Your task to perform on an android device: turn off javascript in the chrome app Image 0: 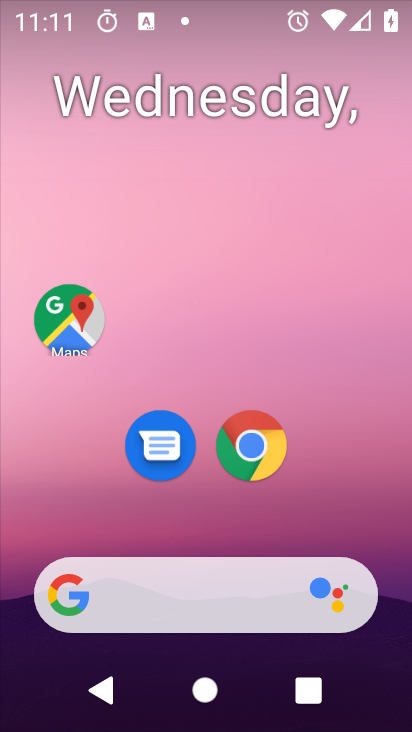
Step 0: drag from (364, 545) to (411, 82)
Your task to perform on an android device: turn off javascript in the chrome app Image 1: 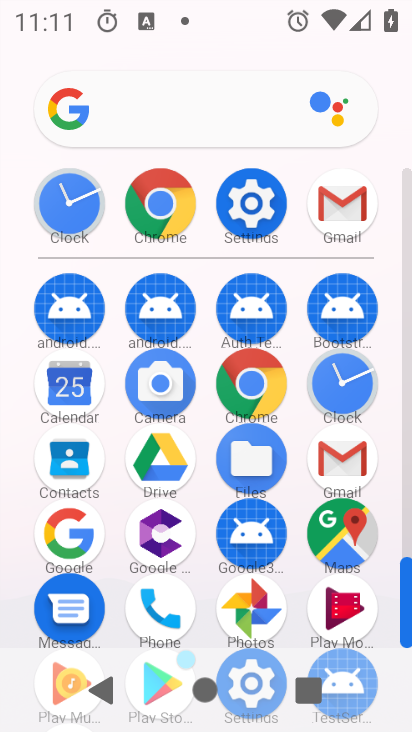
Step 1: click (172, 213)
Your task to perform on an android device: turn off javascript in the chrome app Image 2: 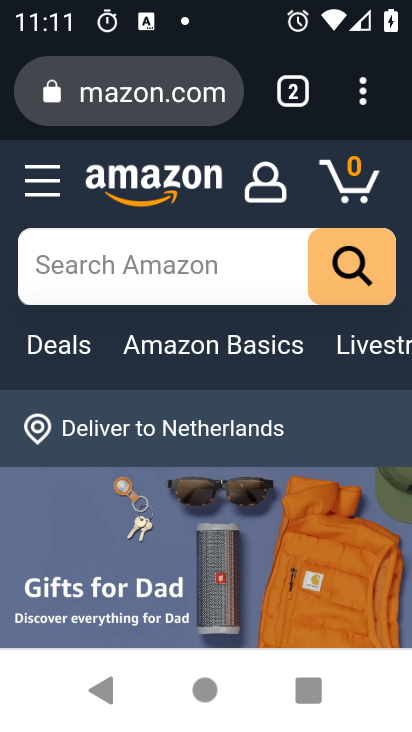
Step 2: drag from (360, 107) to (245, 472)
Your task to perform on an android device: turn off javascript in the chrome app Image 3: 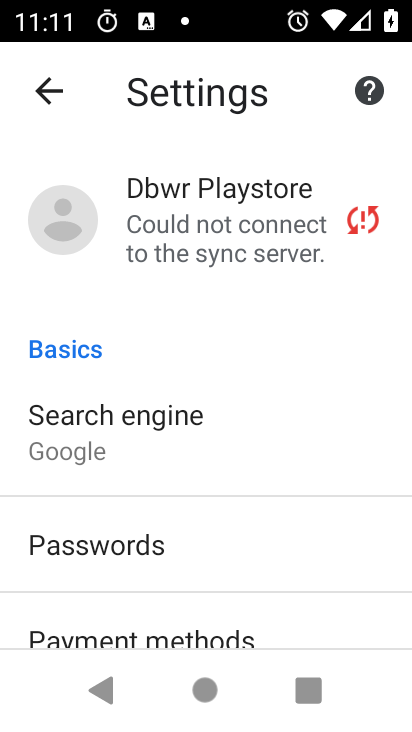
Step 3: drag from (294, 561) to (239, 152)
Your task to perform on an android device: turn off javascript in the chrome app Image 4: 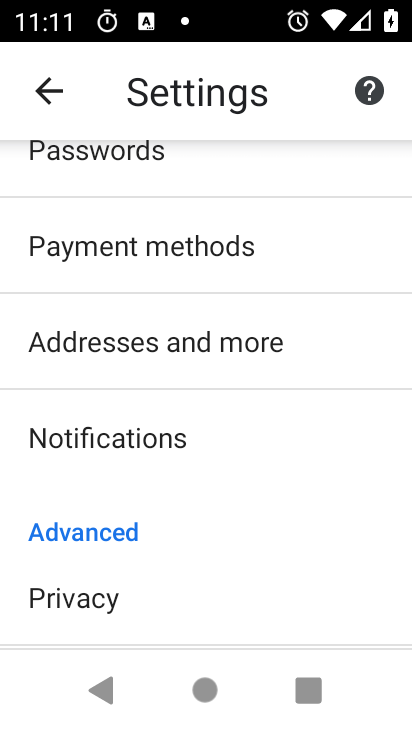
Step 4: drag from (210, 539) to (224, 301)
Your task to perform on an android device: turn off javascript in the chrome app Image 5: 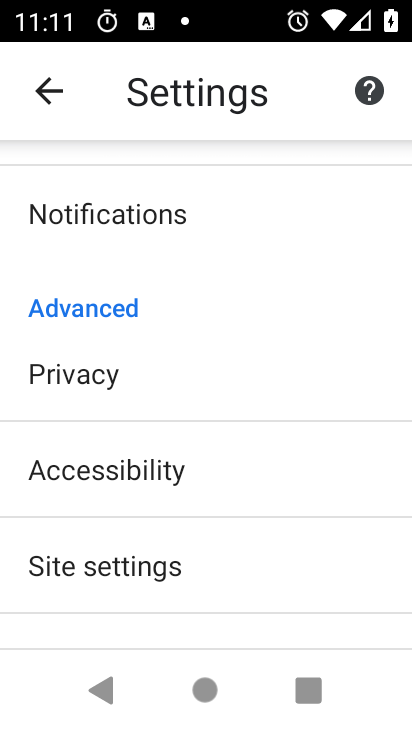
Step 5: click (202, 577)
Your task to perform on an android device: turn off javascript in the chrome app Image 6: 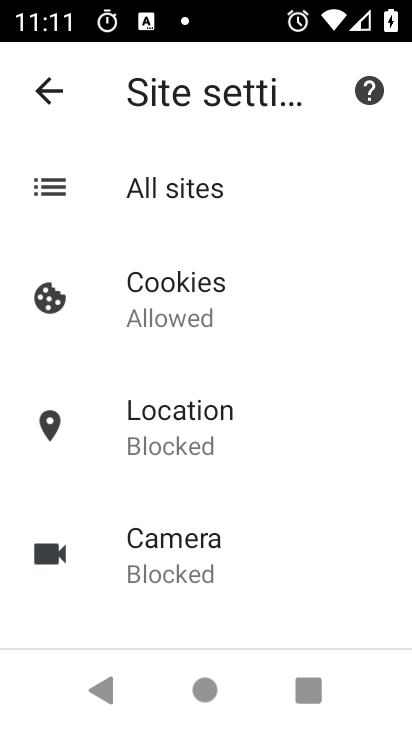
Step 6: drag from (202, 577) to (267, 218)
Your task to perform on an android device: turn off javascript in the chrome app Image 7: 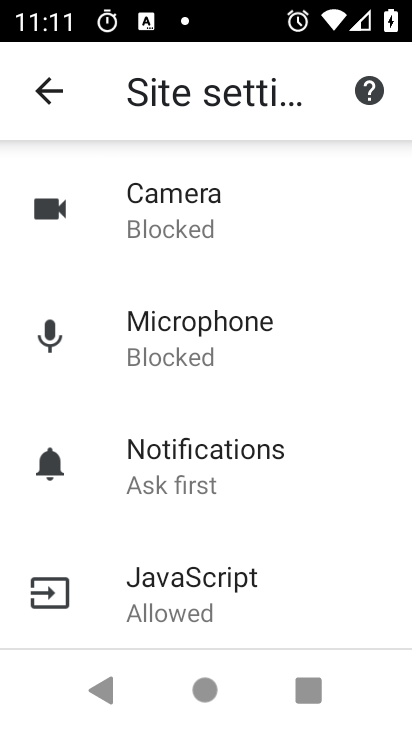
Step 7: click (238, 586)
Your task to perform on an android device: turn off javascript in the chrome app Image 8: 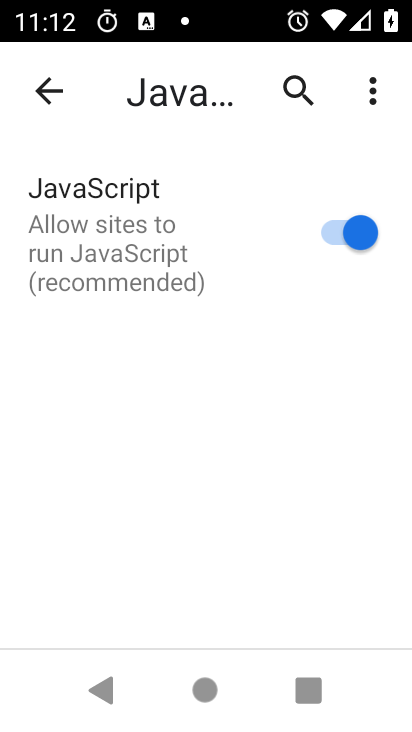
Step 8: click (343, 234)
Your task to perform on an android device: turn off javascript in the chrome app Image 9: 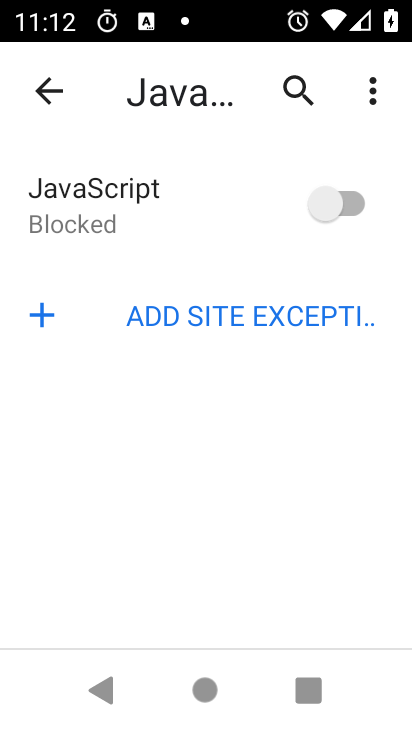
Step 9: task complete